Your task to perform on an android device: turn off notifications settings in the gmail app Image 0: 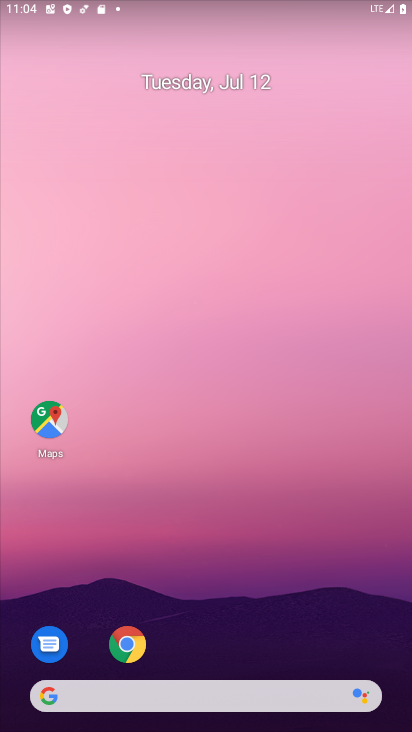
Step 0: drag from (180, 686) to (180, 160)
Your task to perform on an android device: turn off notifications settings in the gmail app Image 1: 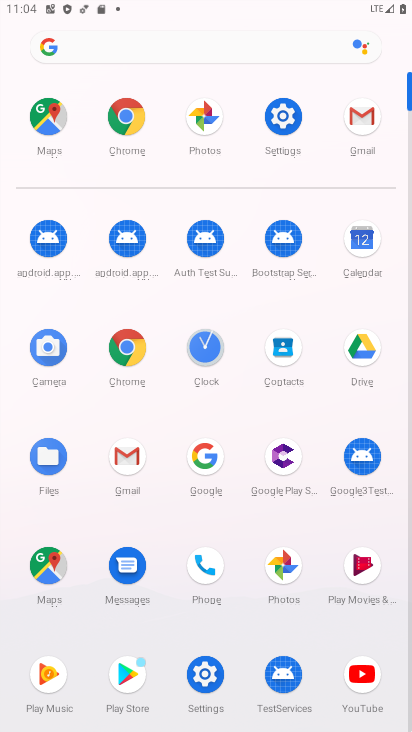
Step 1: click (371, 122)
Your task to perform on an android device: turn off notifications settings in the gmail app Image 2: 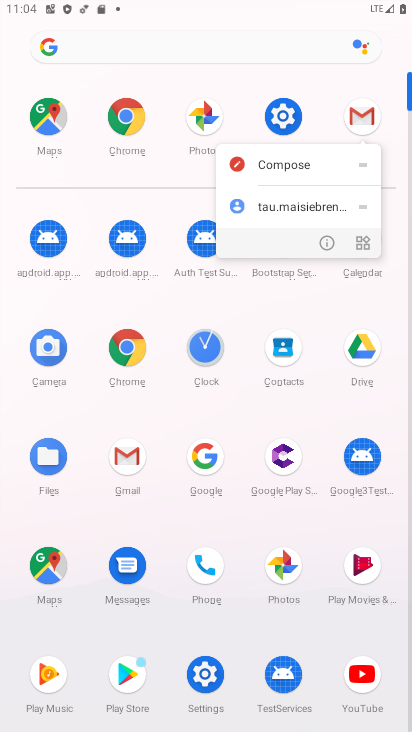
Step 2: click (328, 243)
Your task to perform on an android device: turn off notifications settings in the gmail app Image 3: 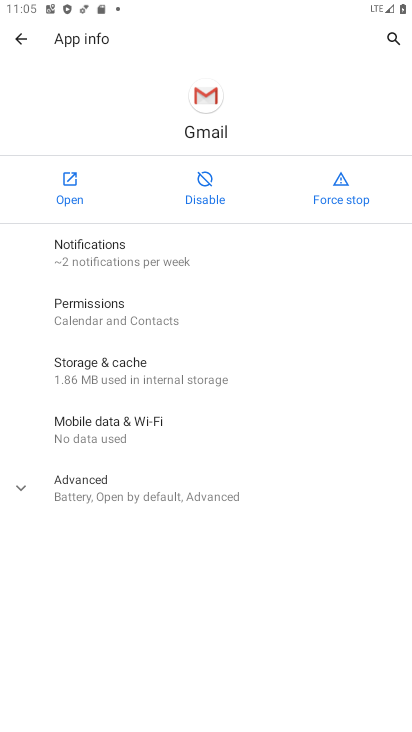
Step 3: click (171, 255)
Your task to perform on an android device: turn off notifications settings in the gmail app Image 4: 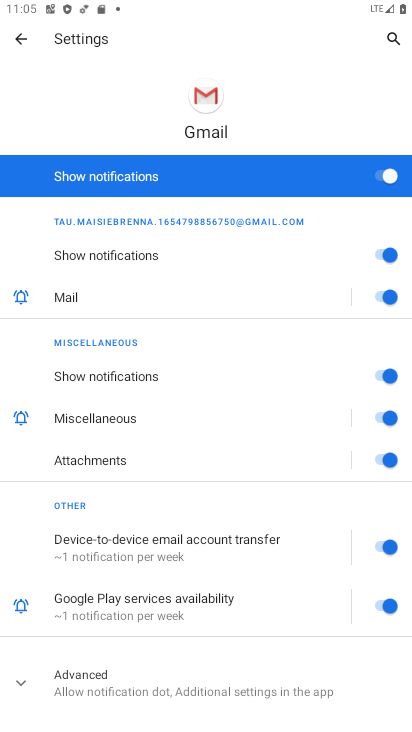
Step 4: click (395, 178)
Your task to perform on an android device: turn off notifications settings in the gmail app Image 5: 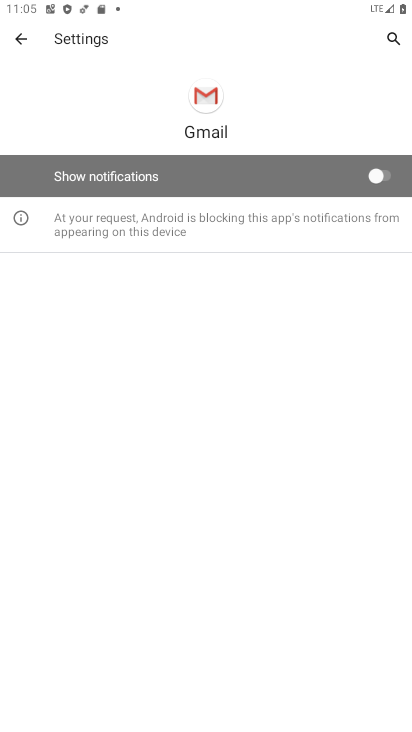
Step 5: task complete